Your task to perform on an android device: see creations saved in the google photos Image 0: 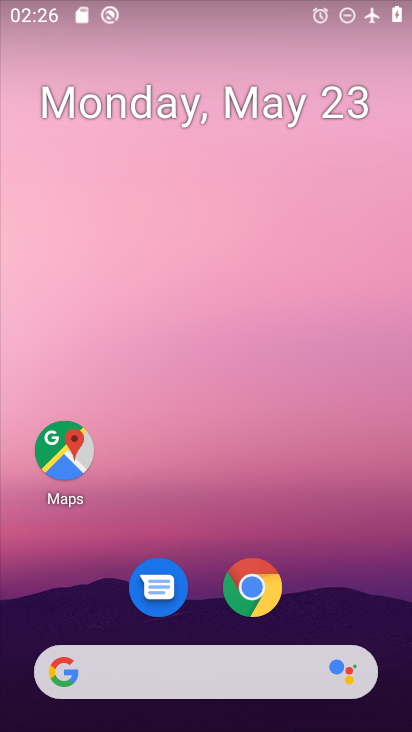
Step 0: drag from (362, 605) to (286, 140)
Your task to perform on an android device: see creations saved in the google photos Image 1: 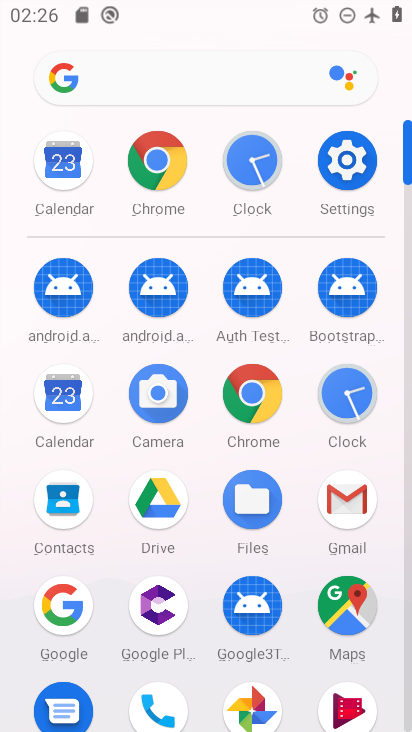
Step 1: click (263, 705)
Your task to perform on an android device: see creations saved in the google photos Image 2: 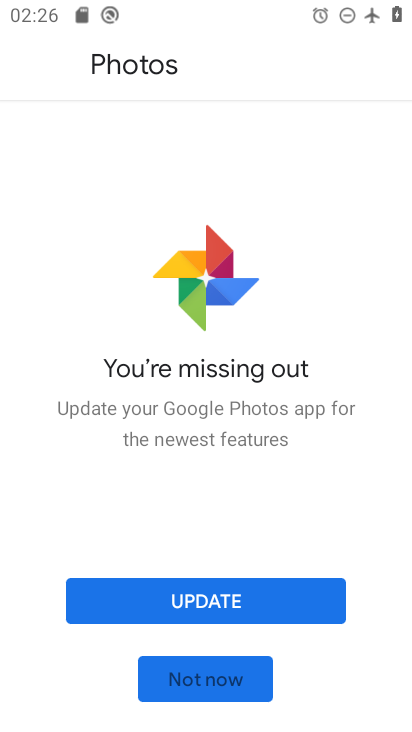
Step 2: click (205, 598)
Your task to perform on an android device: see creations saved in the google photos Image 3: 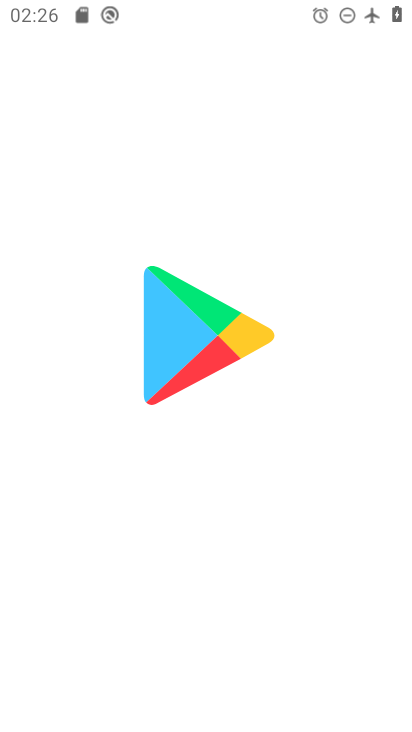
Step 3: click (205, 598)
Your task to perform on an android device: see creations saved in the google photos Image 4: 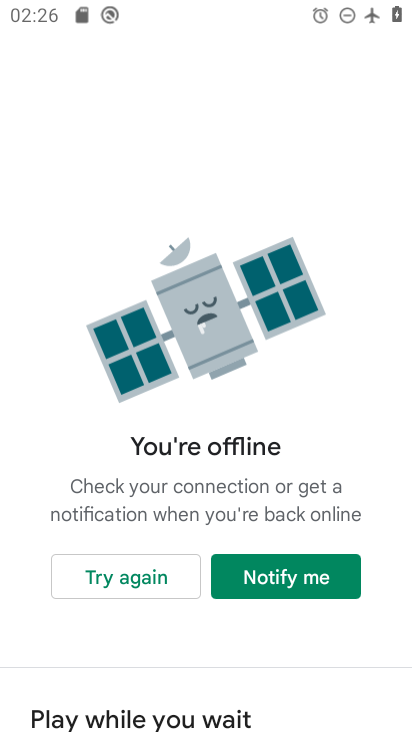
Step 4: click (271, 577)
Your task to perform on an android device: see creations saved in the google photos Image 5: 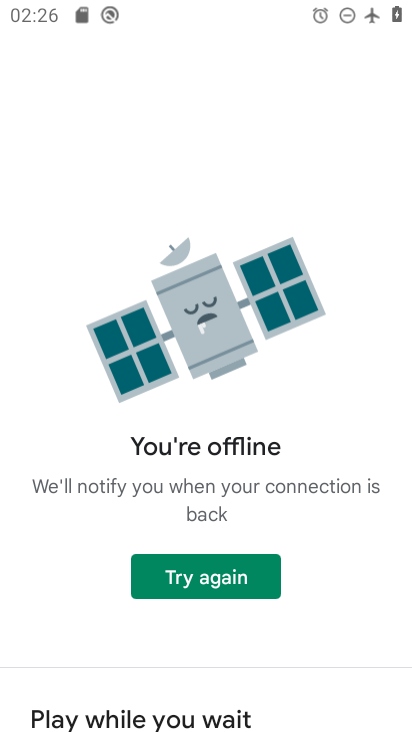
Step 5: task complete